Your task to perform on an android device: toggle translation in the chrome app Image 0: 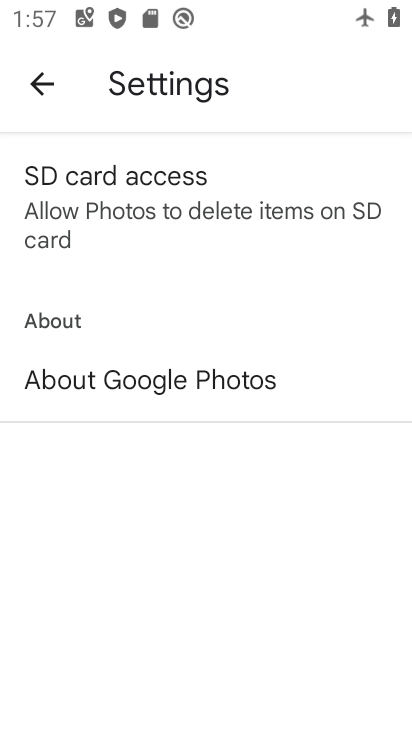
Step 0: press home button
Your task to perform on an android device: toggle translation in the chrome app Image 1: 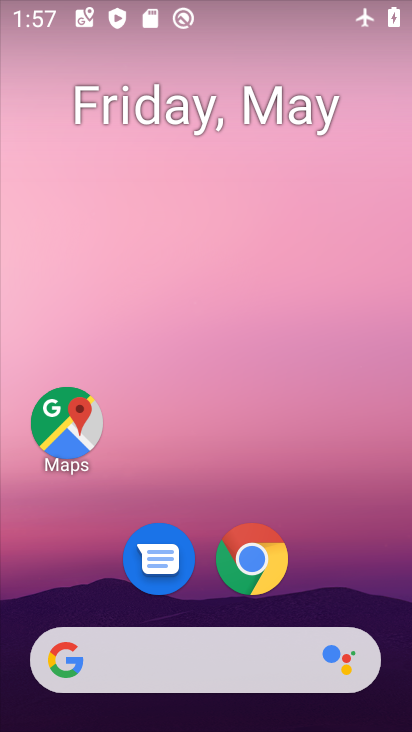
Step 1: click (253, 571)
Your task to perform on an android device: toggle translation in the chrome app Image 2: 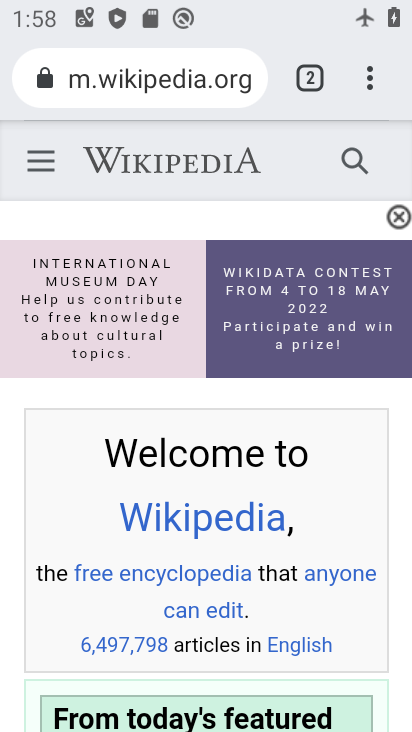
Step 2: drag from (371, 80) to (240, 627)
Your task to perform on an android device: toggle translation in the chrome app Image 3: 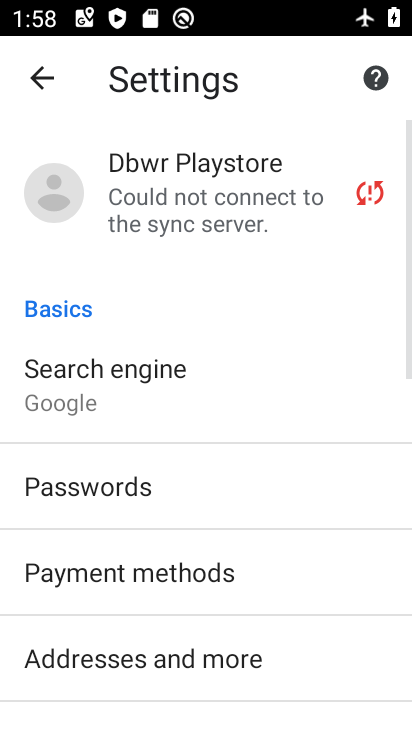
Step 3: drag from (256, 669) to (224, 210)
Your task to perform on an android device: toggle translation in the chrome app Image 4: 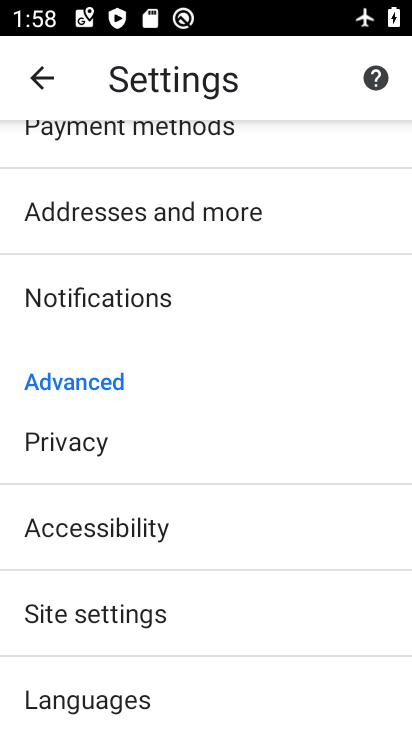
Step 4: click (145, 692)
Your task to perform on an android device: toggle translation in the chrome app Image 5: 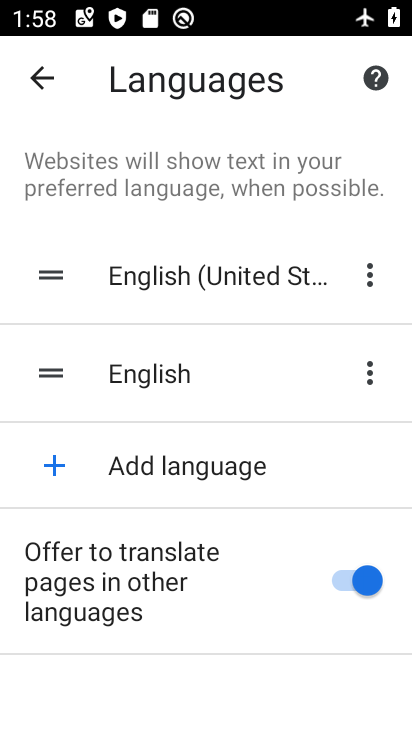
Step 5: click (369, 581)
Your task to perform on an android device: toggle translation in the chrome app Image 6: 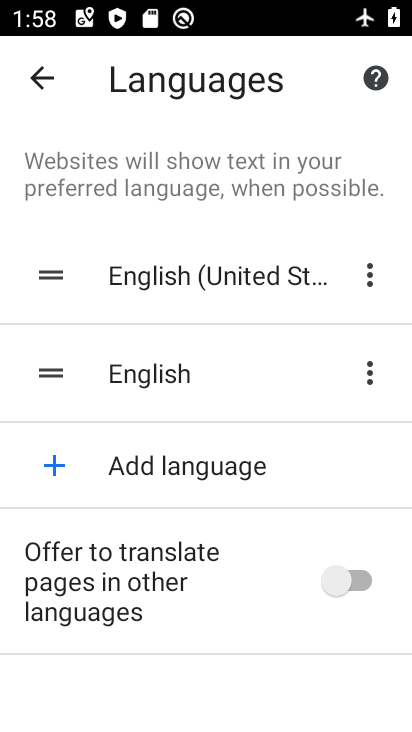
Step 6: task complete